Your task to perform on an android device: Open ESPN.com Image 0: 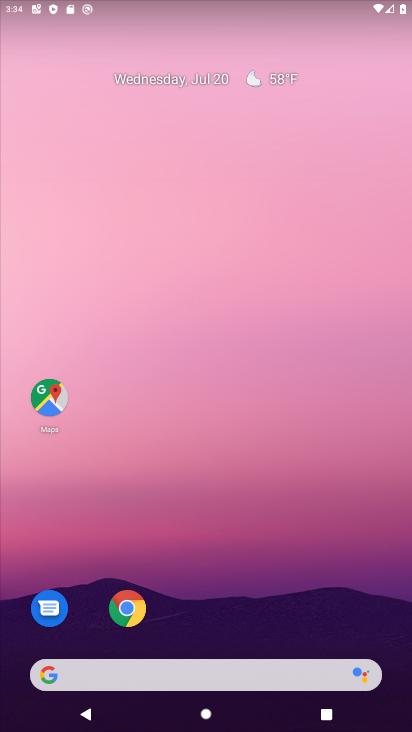
Step 0: click (138, 683)
Your task to perform on an android device: Open ESPN.com Image 1: 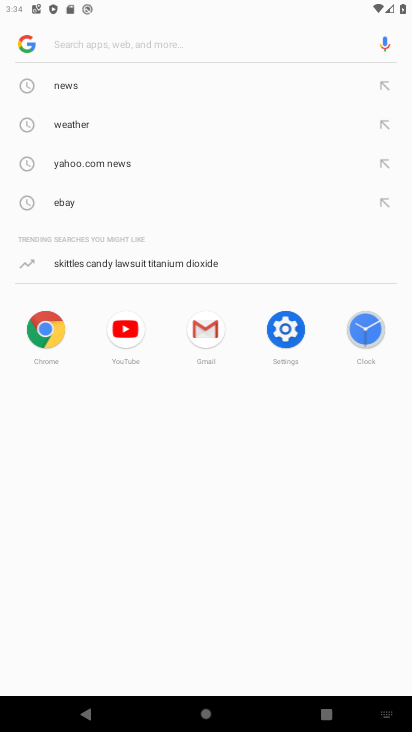
Step 1: type "espn.com"
Your task to perform on an android device: Open ESPN.com Image 2: 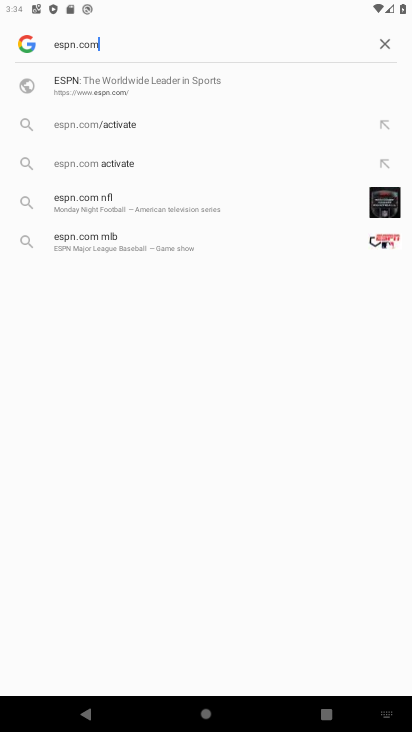
Step 2: click (85, 72)
Your task to perform on an android device: Open ESPN.com Image 3: 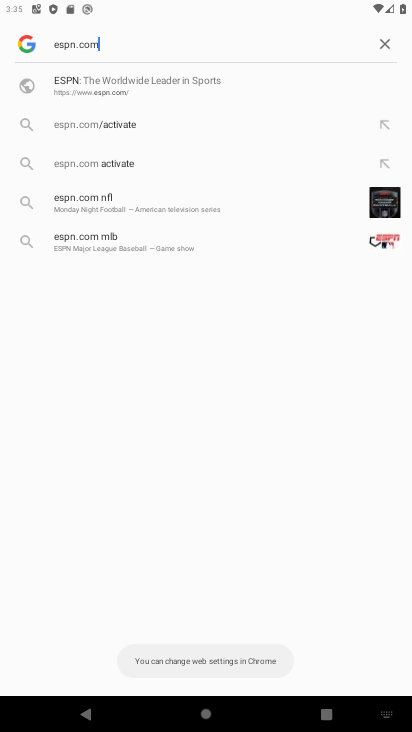
Step 3: task complete